Your task to perform on an android device: open sync settings in chrome Image 0: 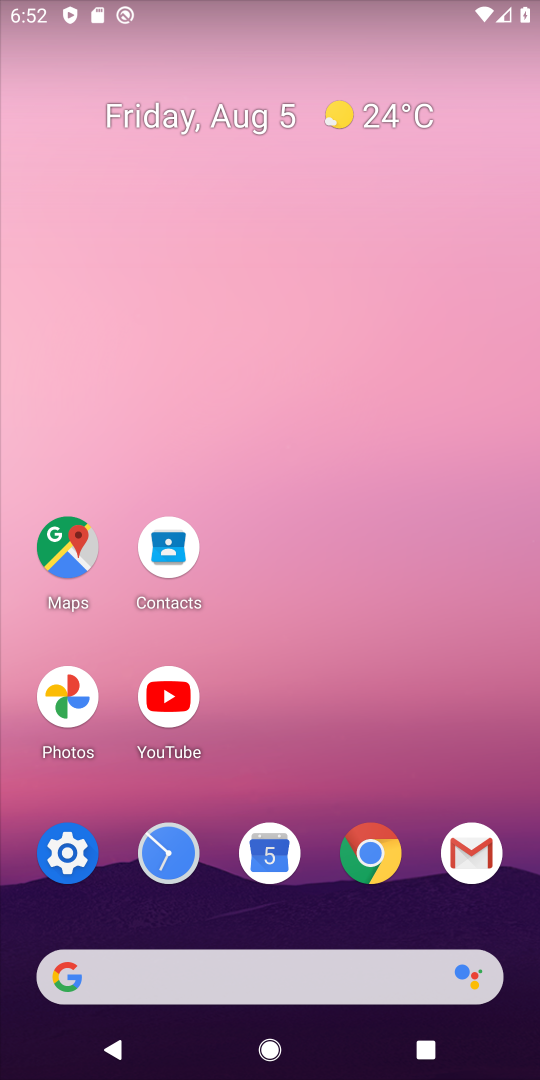
Step 0: click (368, 852)
Your task to perform on an android device: open sync settings in chrome Image 1: 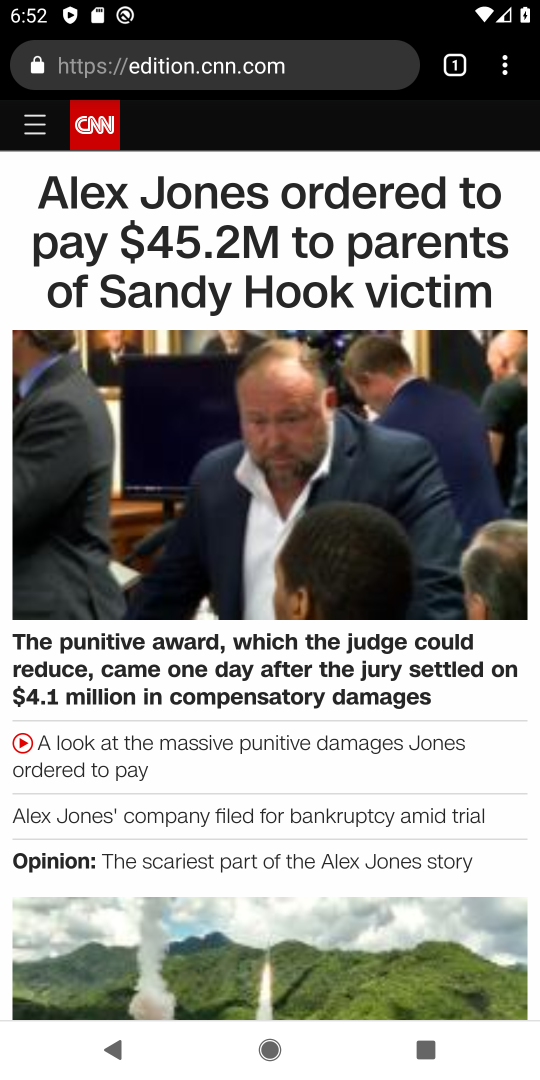
Step 1: click (507, 70)
Your task to perform on an android device: open sync settings in chrome Image 2: 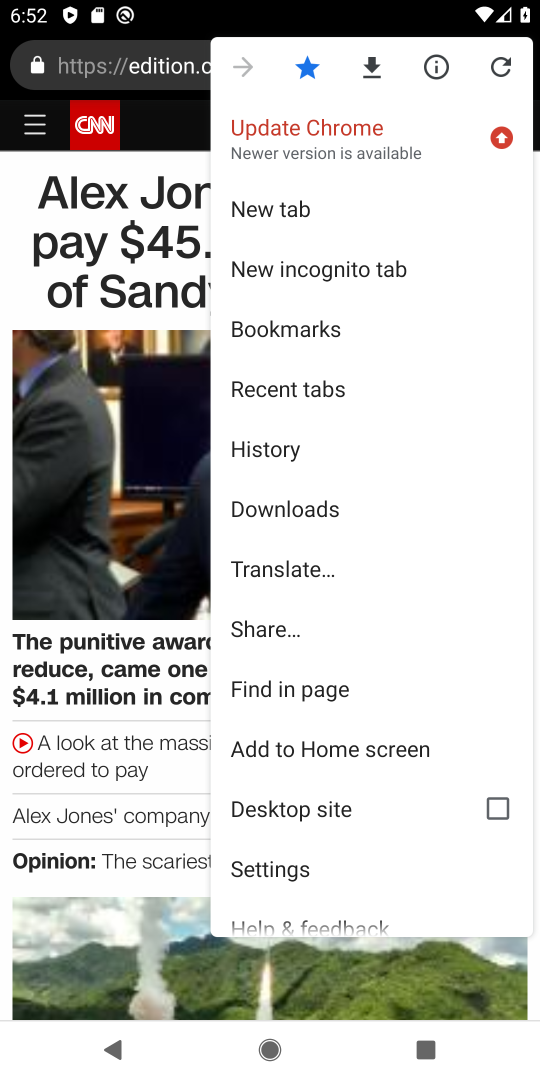
Step 2: click (289, 857)
Your task to perform on an android device: open sync settings in chrome Image 3: 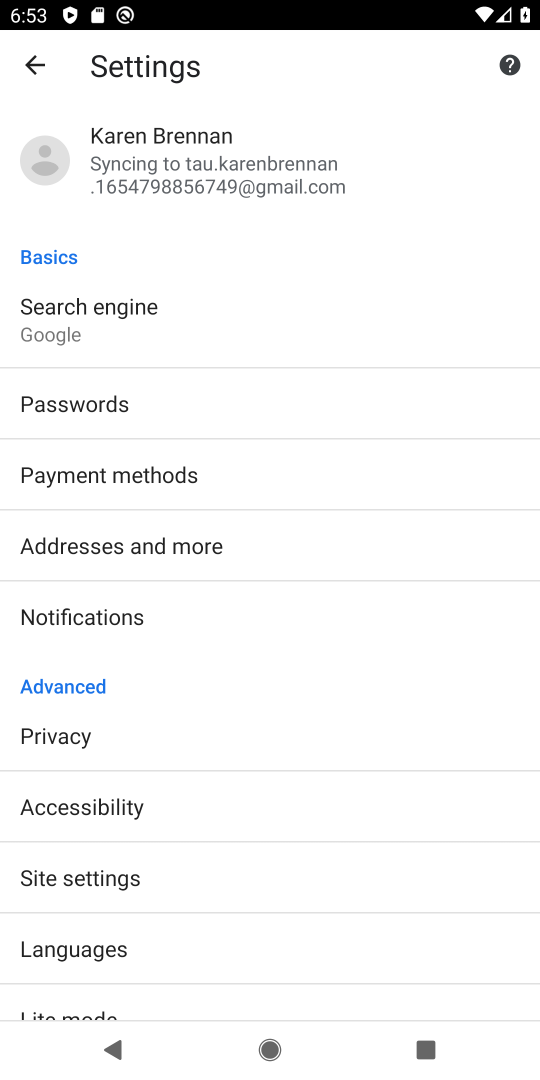
Step 3: click (147, 128)
Your task to perform on an android device: open sync settings in chrome Image 4: 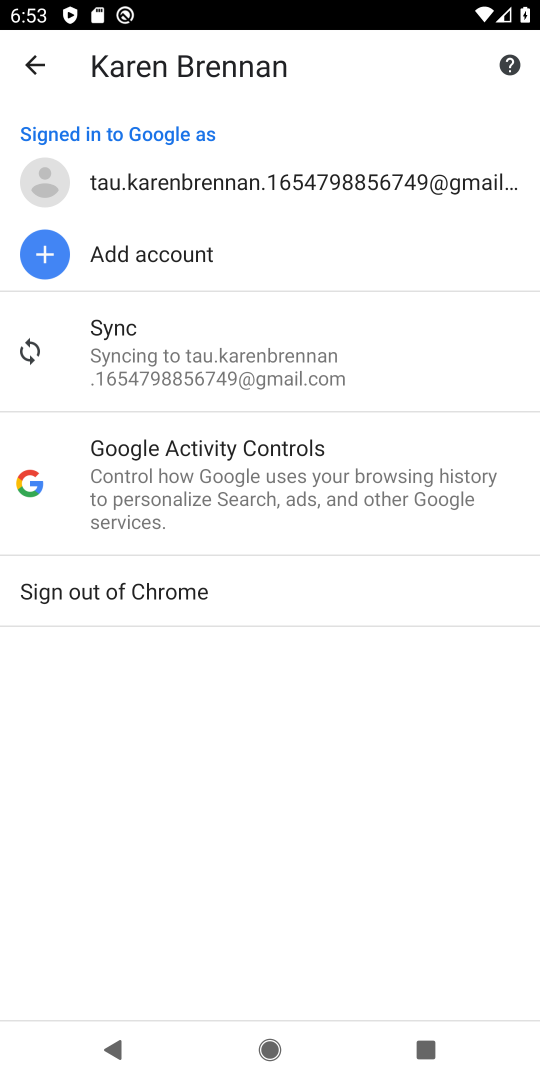
Step 4: click (108, 359)
Your task to perform on an android device: open sync settings in chrome Image 5: 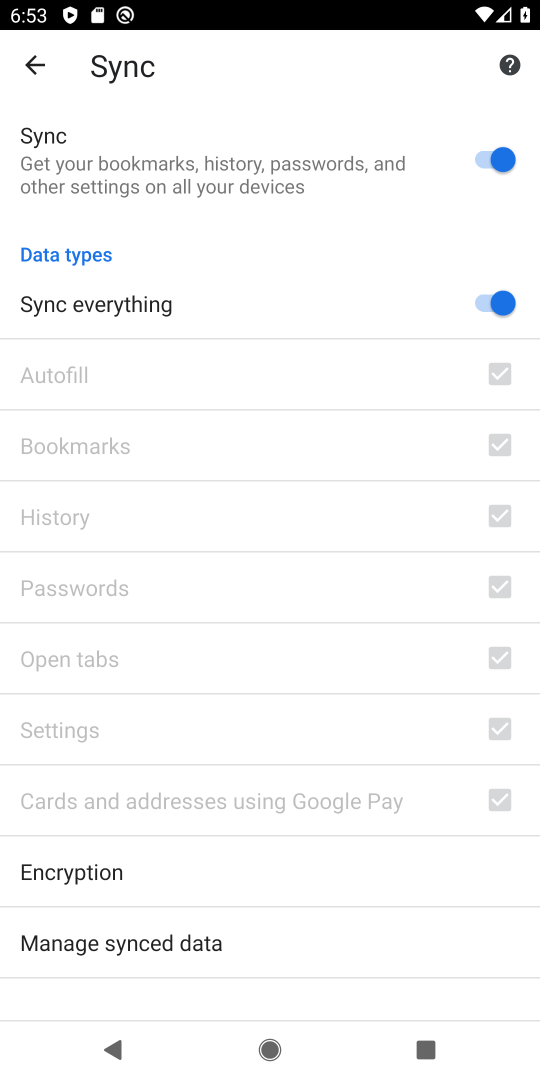
Step 5: task complete